Your task to perform on an android device: open a bookmark in the chrome app Image 0: 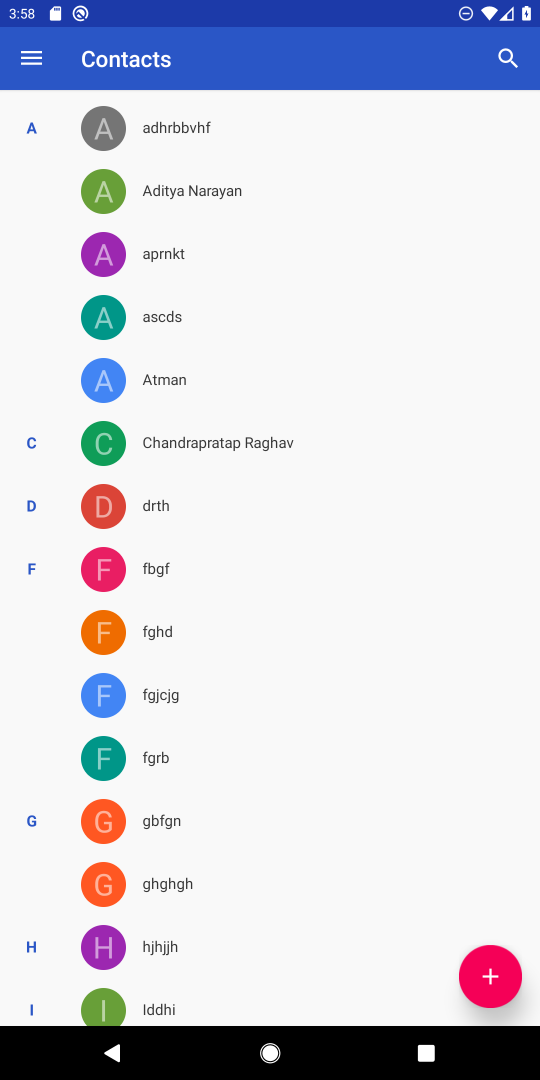
Step 0: press home button
Your task to perform on an android device: open a bookmark in the chrome app Image 1: 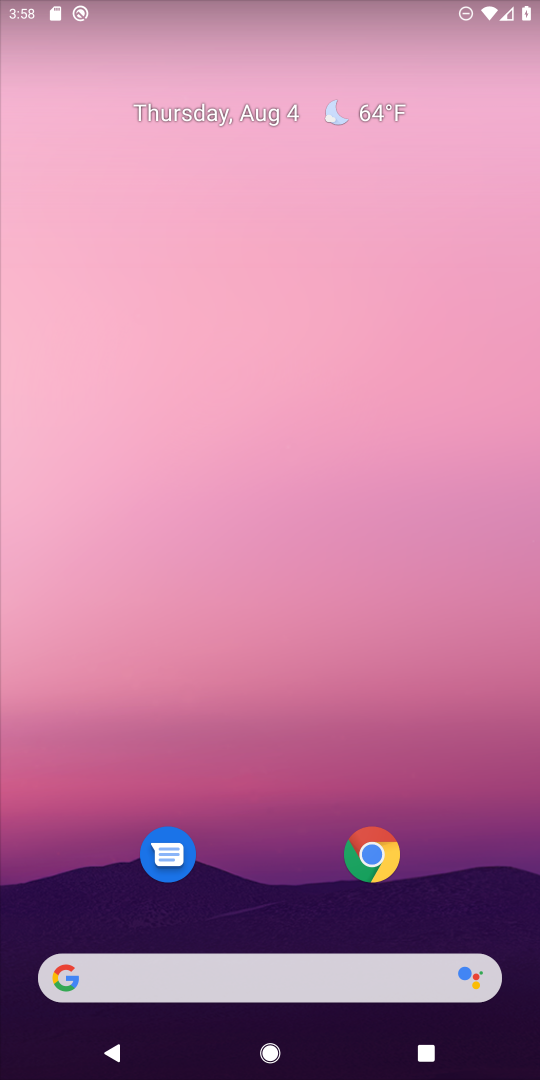
Step 1: drag from (241, 634) to (221, 144)
Your task to perform on an android device: open a bookmark in the chrome app Image 2: 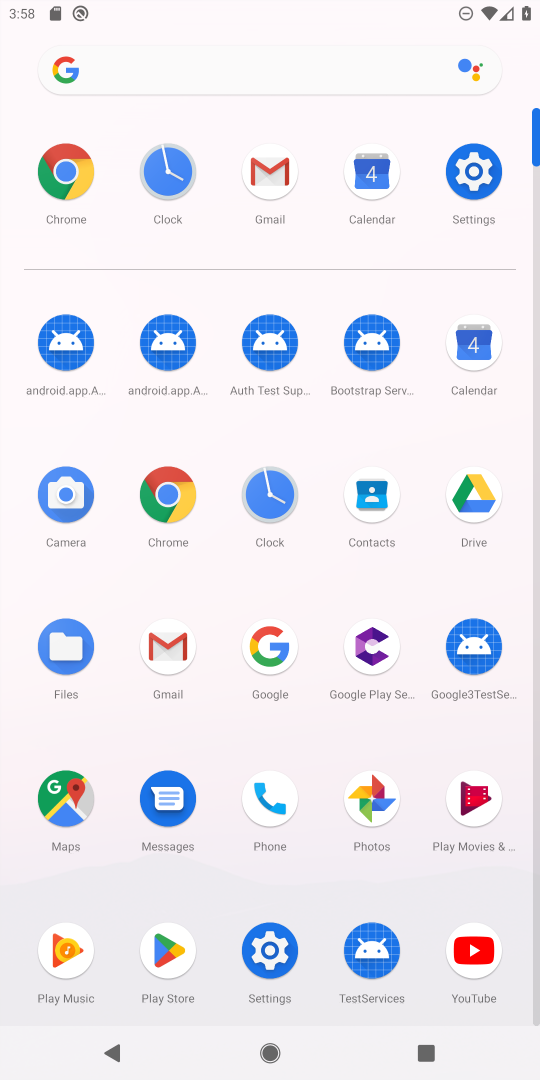
Step 2: click (155, 499)
Your task to perform on an android device: open a bookmark in the chrome app Image 3: 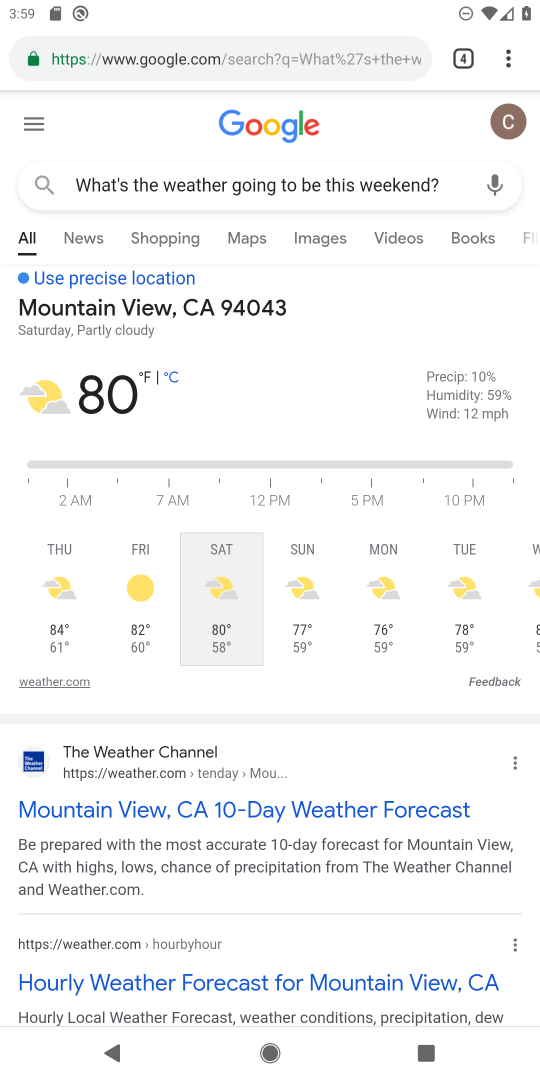
Step 3: task complete